Your task to perform on an android device: turn off notifications settings in the gmail app Image 0: 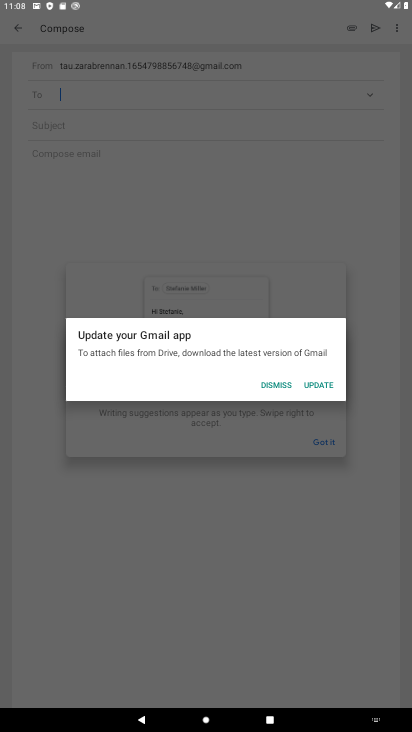
Step 0: press home button
Your task to perform on an android device: turn off notifications settings in the gmail app Image 1: 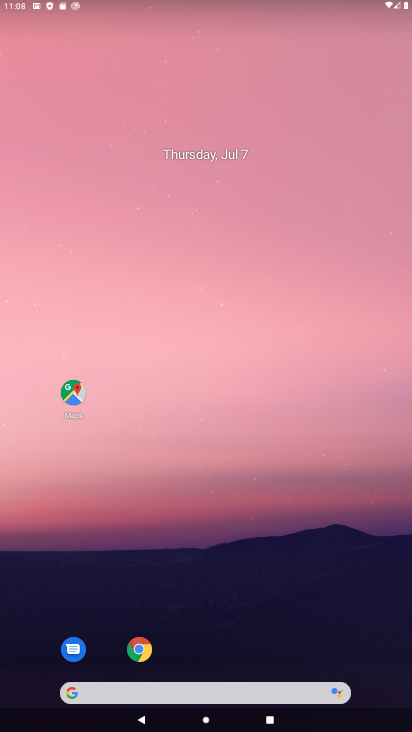
Step 1: drag from (248, 670) to (366, 136)
Your task to perform on an android device: turn off notifications settings in the gmail app Image 2: 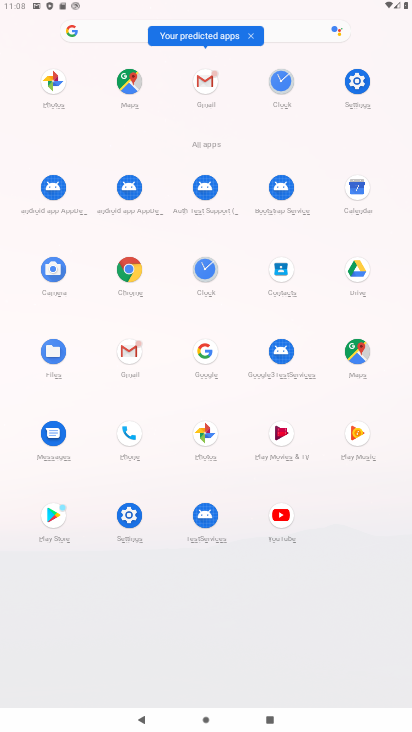
Step 2: click (144, 354)
Your task to perform on an android device: turn off notifications settings in the gmail app Image 3: 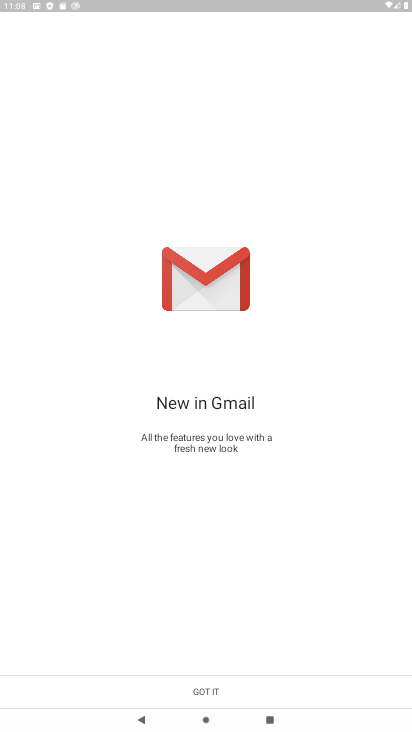
Step 3: click (209, 679)
Your task to perform on an android device: turn off notifications settings in the gmail app Image 4: 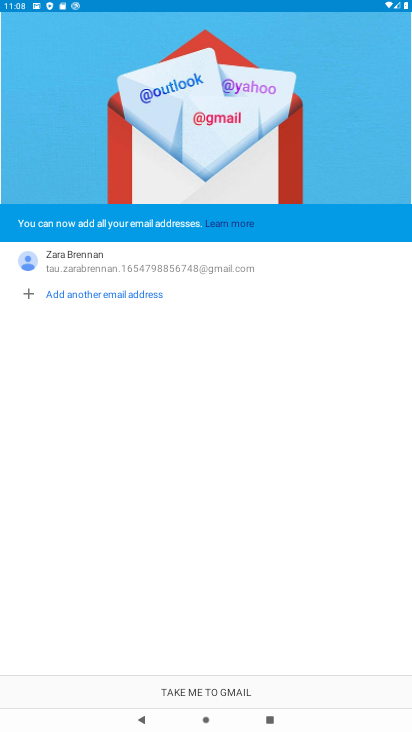
Step 4: click (207, 700)
Your task to perform on an android device: turn off notifications settings in the gmail app Image 5: 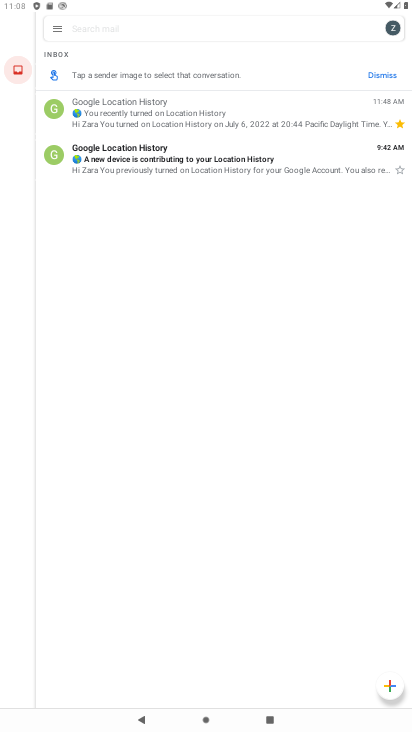
Step 5: click (63, 25)
Your task to perform on an android device: turn off notifications settings in the gmail app Image 6: 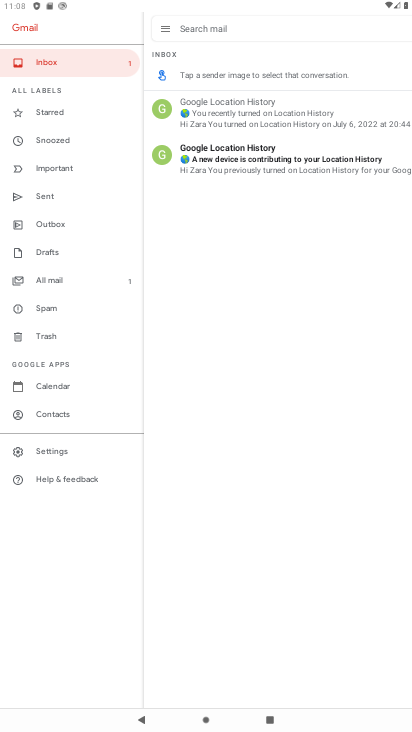
Step 6: click (68, 452)
Your task to perform on an android device: turn off notifications settings in the gmail app Image 7: 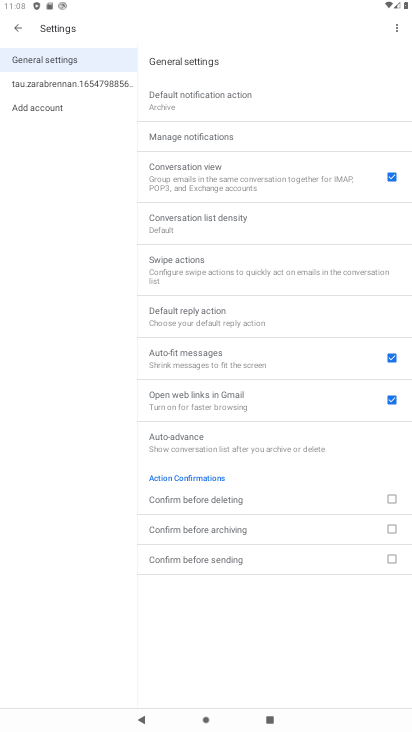
Step 7: click (101, 79)
Your task to perform on an android device: turn off notifications settings in the gmail app Image 8: 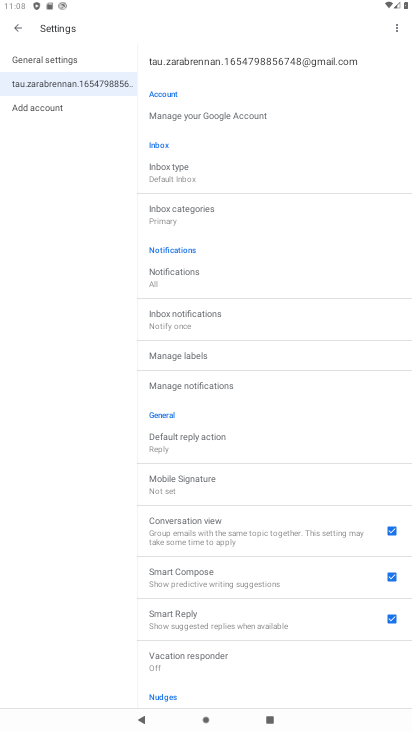
Step 8: click (257, 386)
Your task to perform on an android device: turn off notifications settings in the gmail app Image 9: 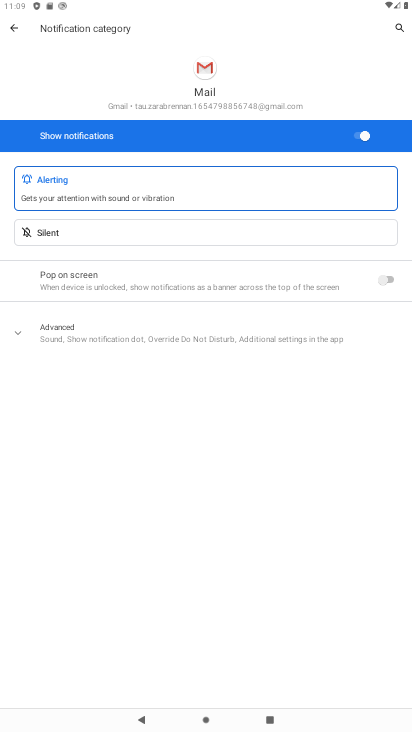
Step 9: click (358, 133)
Your task to perform on an android device: turn off notifications settings in the gmail app Image 10: 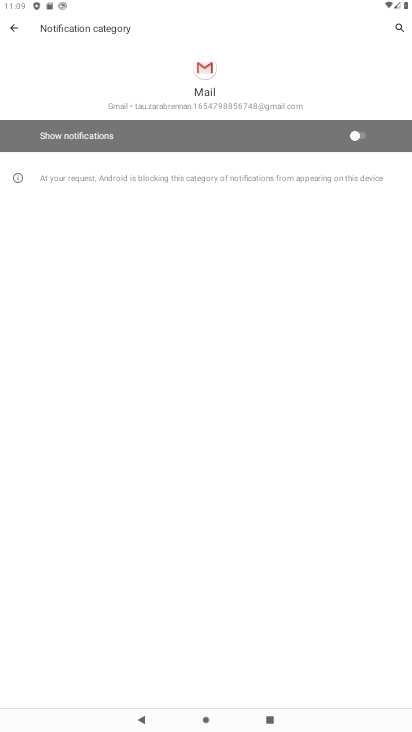
Step 10: task complete